Your task to perform on an android device: add a contact Image 0: 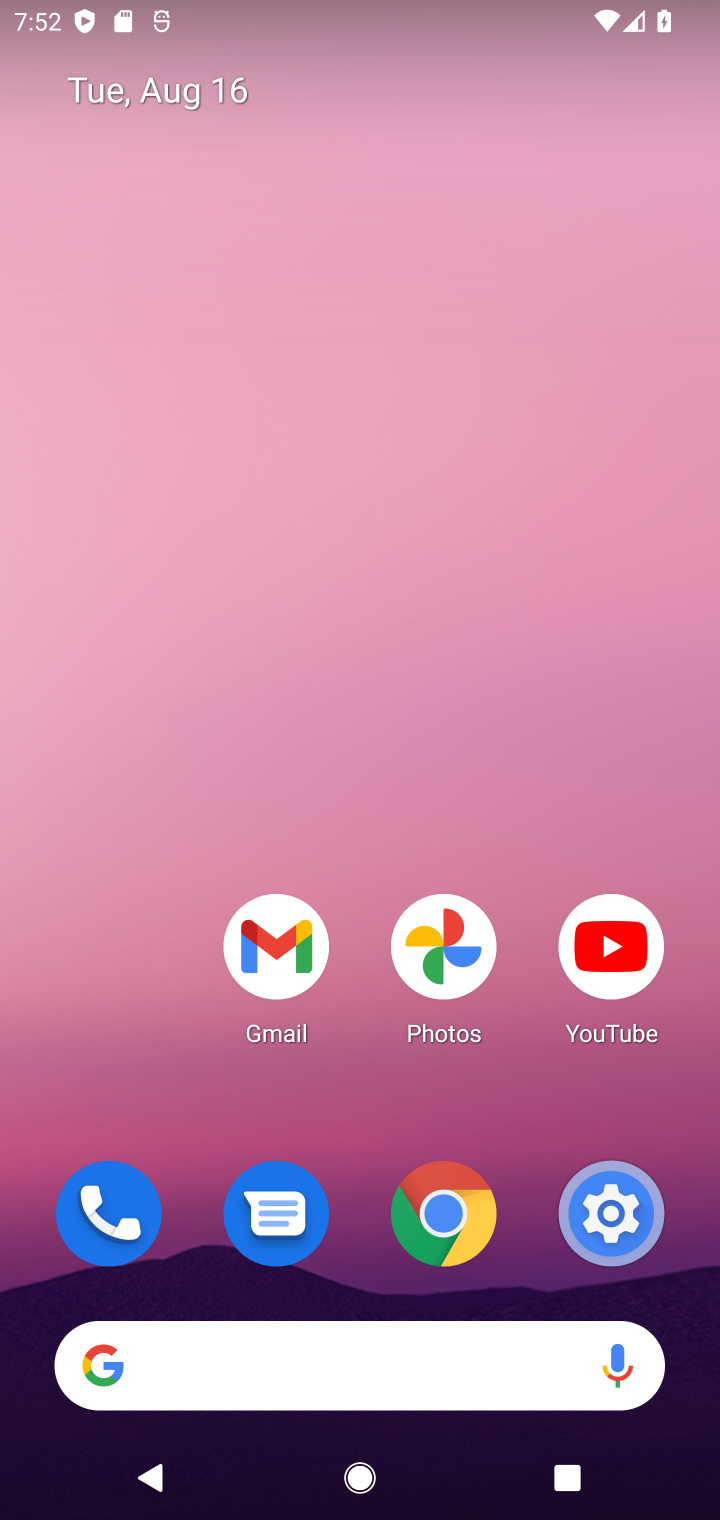
Step 0: drag from (387, 1314) to (375, 137)
Your task to perform on an android device: add a contact Image 1: 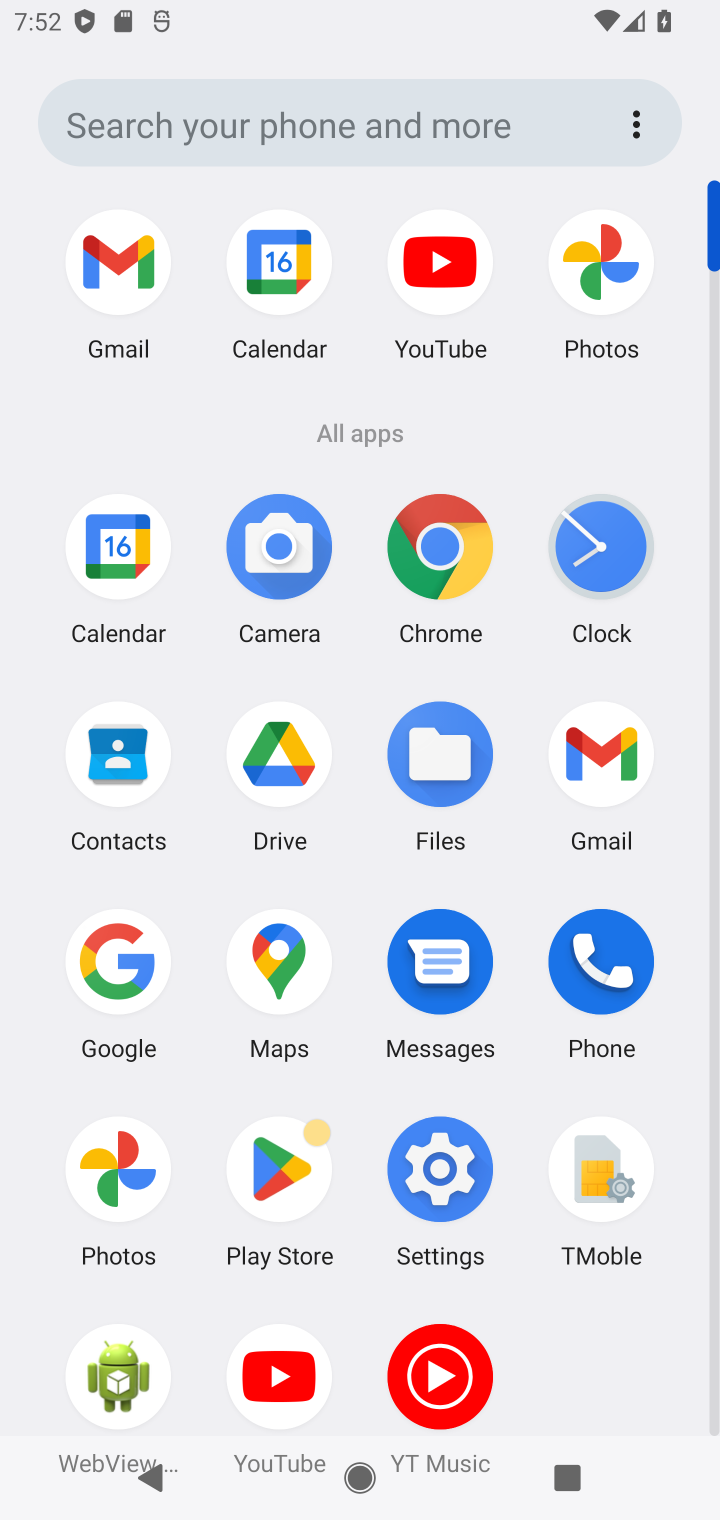
Step 1: click (78, 812)
Your task to perform on an android device: add a contact Image 2: 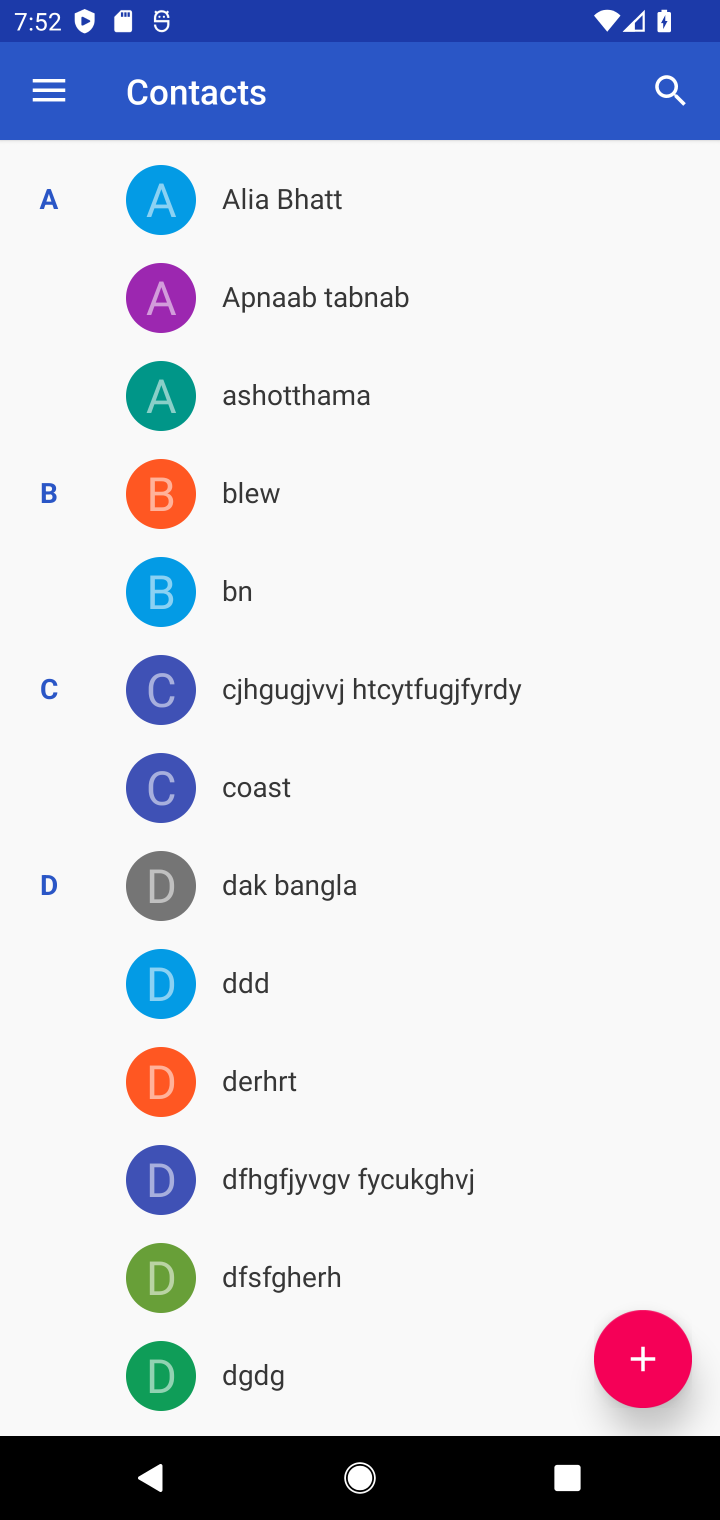
Step 2: click (622, 1375)
Your task to perform on an android device: add a contact Image 3: 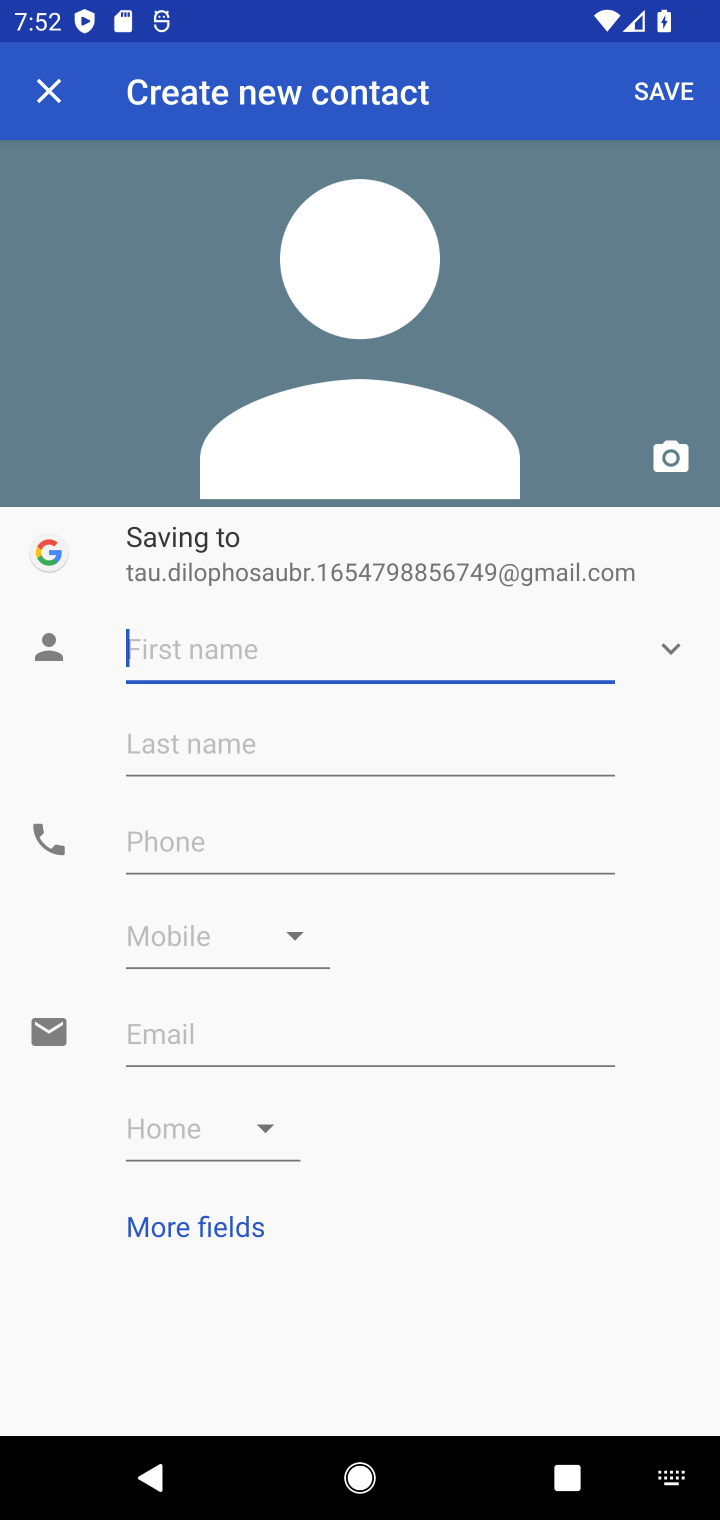
Step 3: type "ojyftdch"
Your task to perform on an android device: add a contact Image 4: 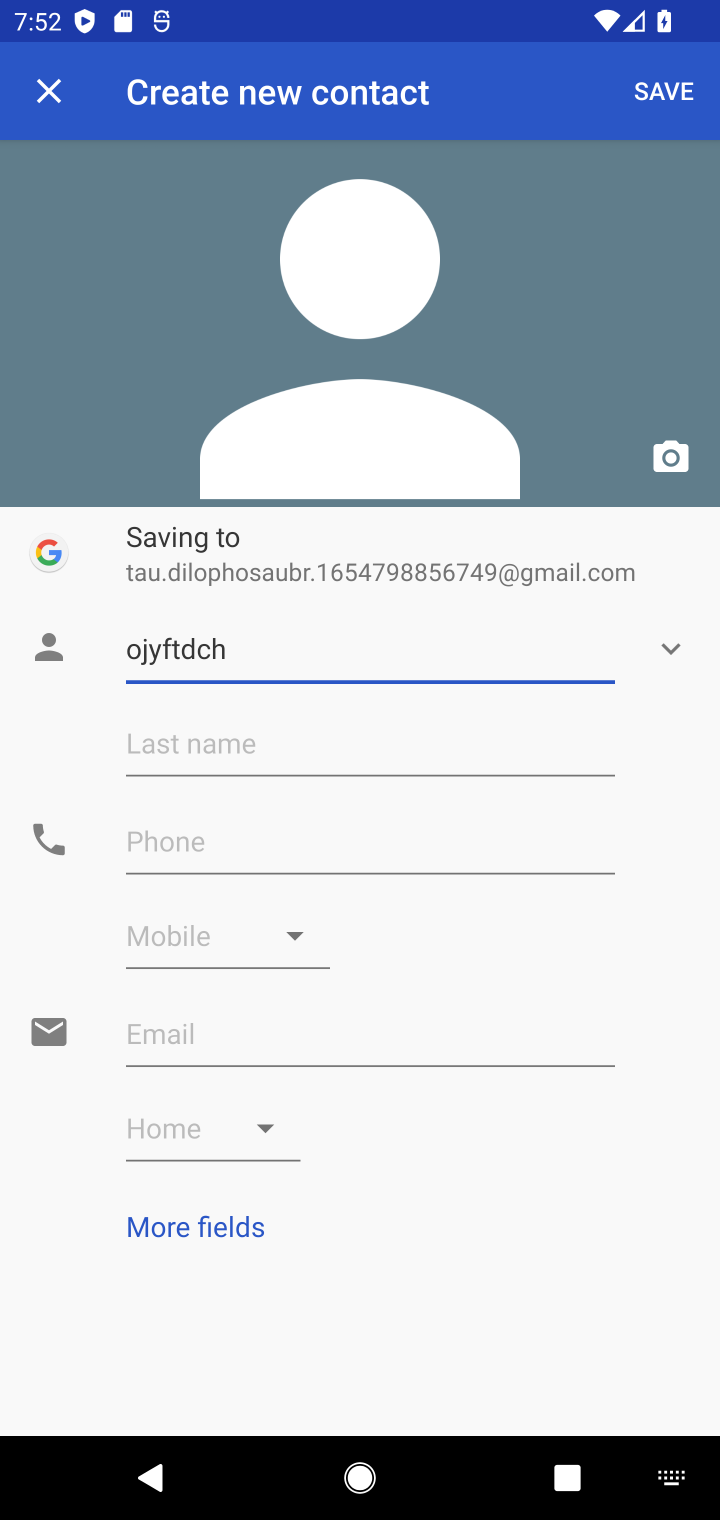
Step 4: click (477, 765)
Your task to perform on an android device: add a contact Image 5: 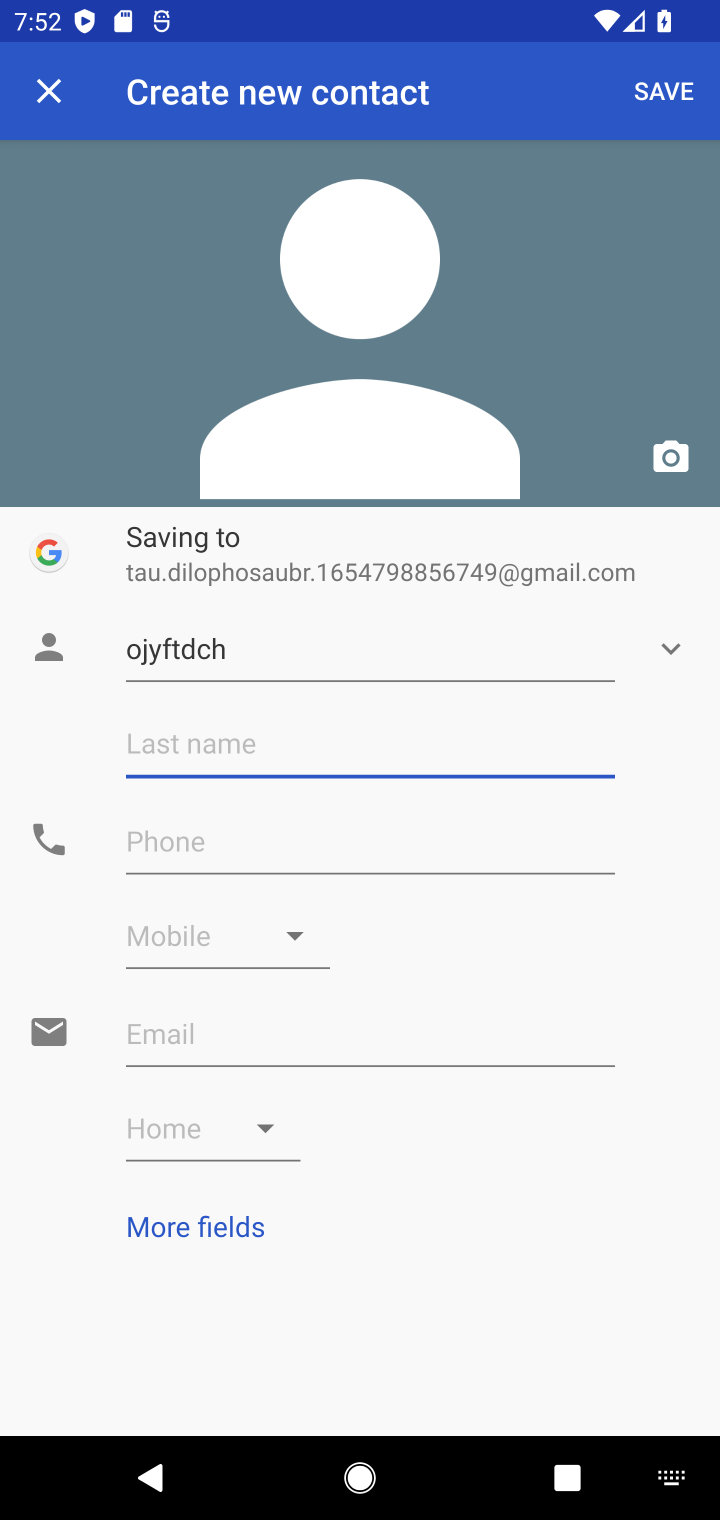
Step 5: type "jkfhdg"
Your task to perform on an android device: add a contact Image 6: 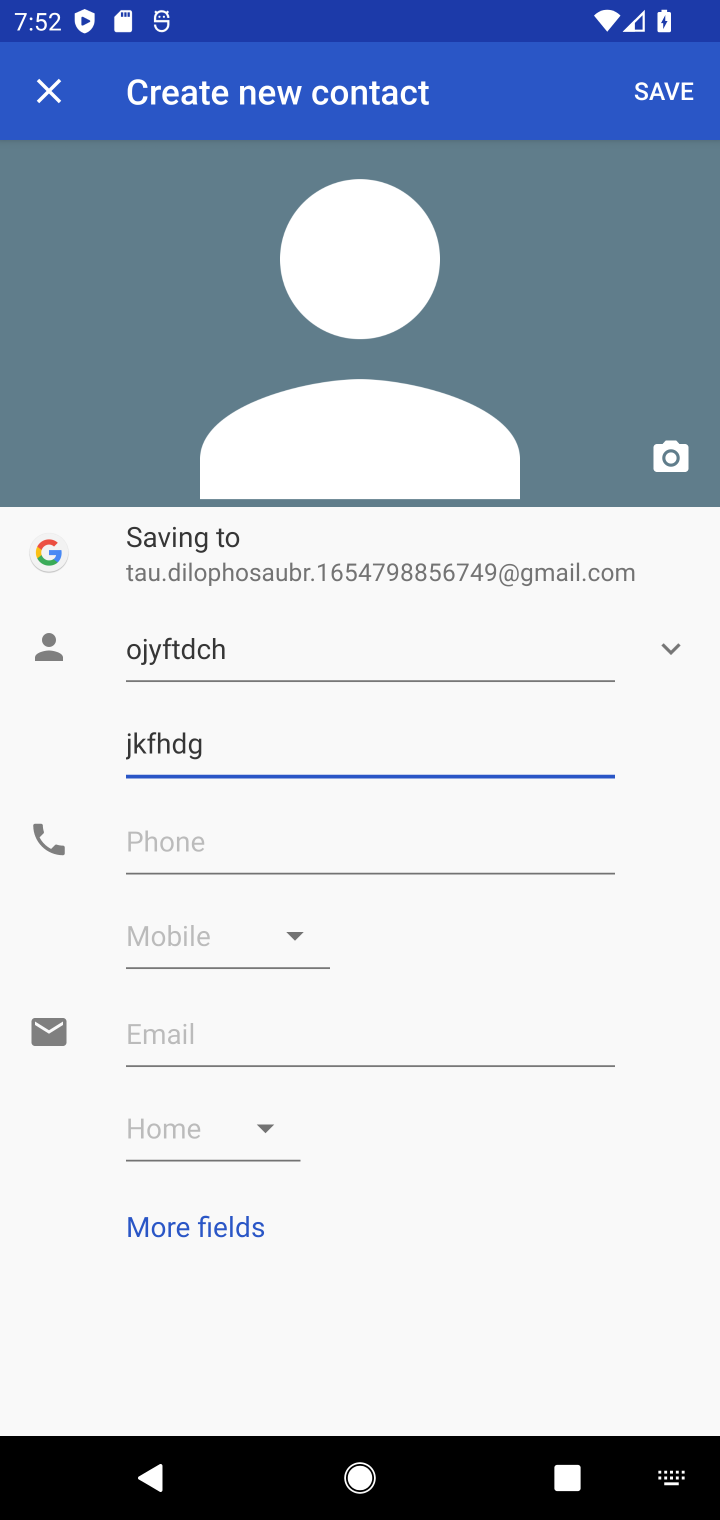
Step 6: click (381, 829)
Your task to perform on an android device: add a contact Image 7: 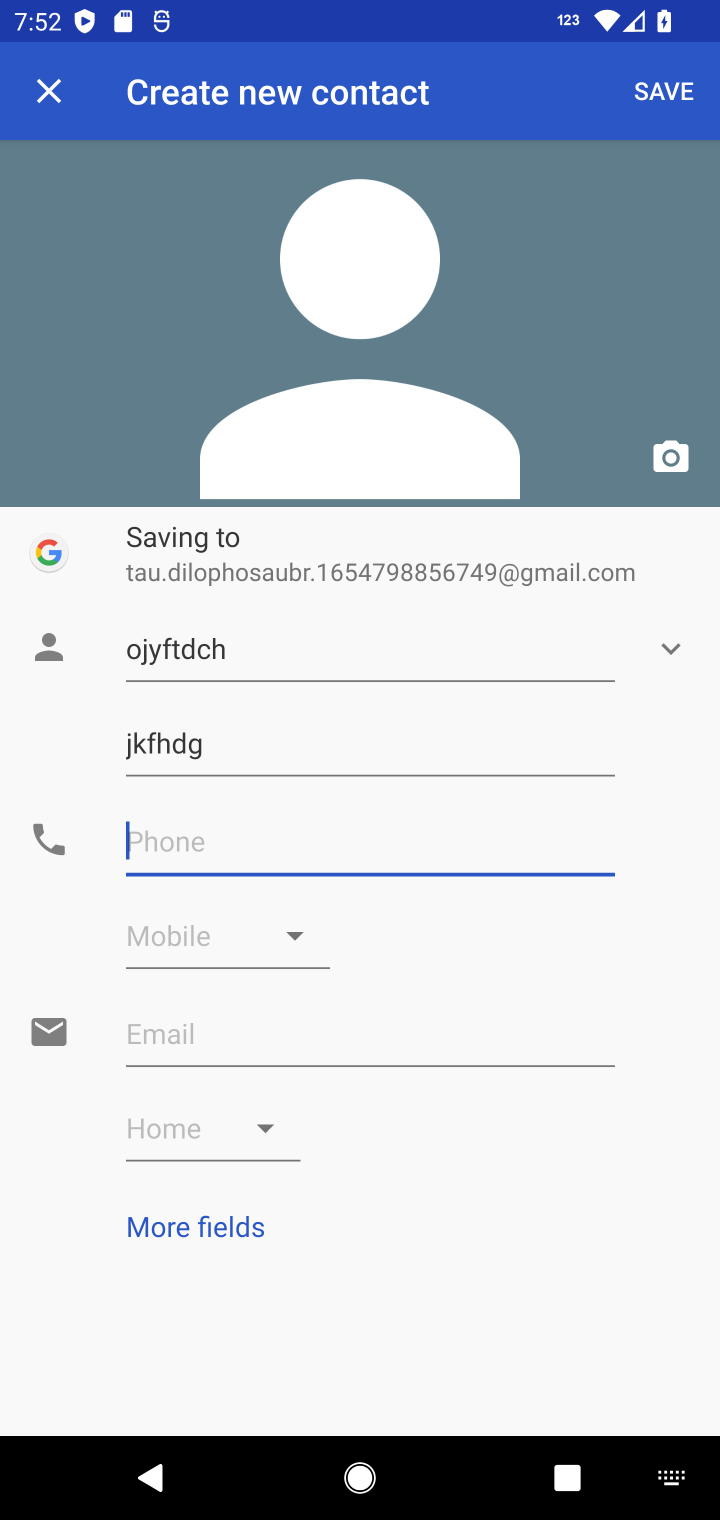
Step 7: type "1234567890987654321"
Your task to perform on an android device: add a contact Image 8: 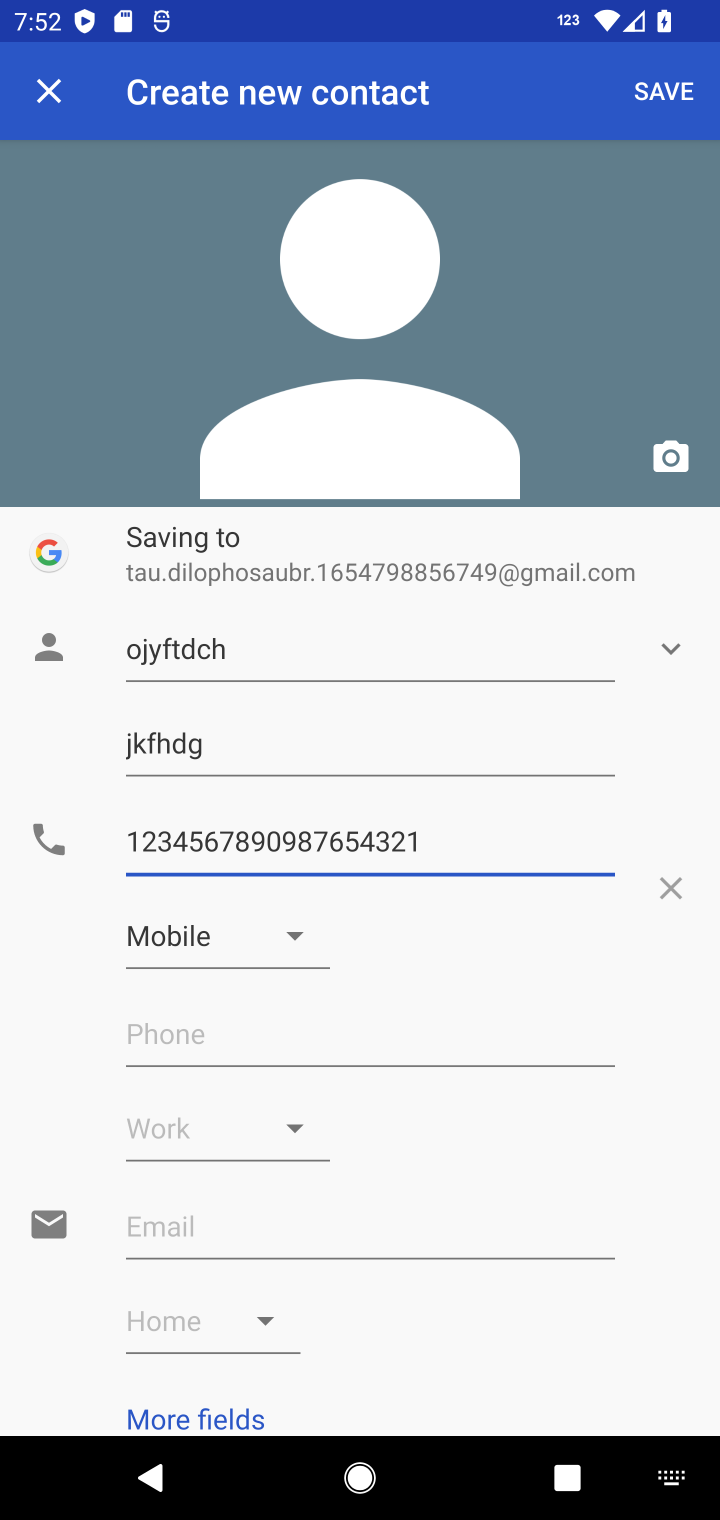
Step 8: click (670, 119)
Your task to perform on an android device: add a contact Image 9: 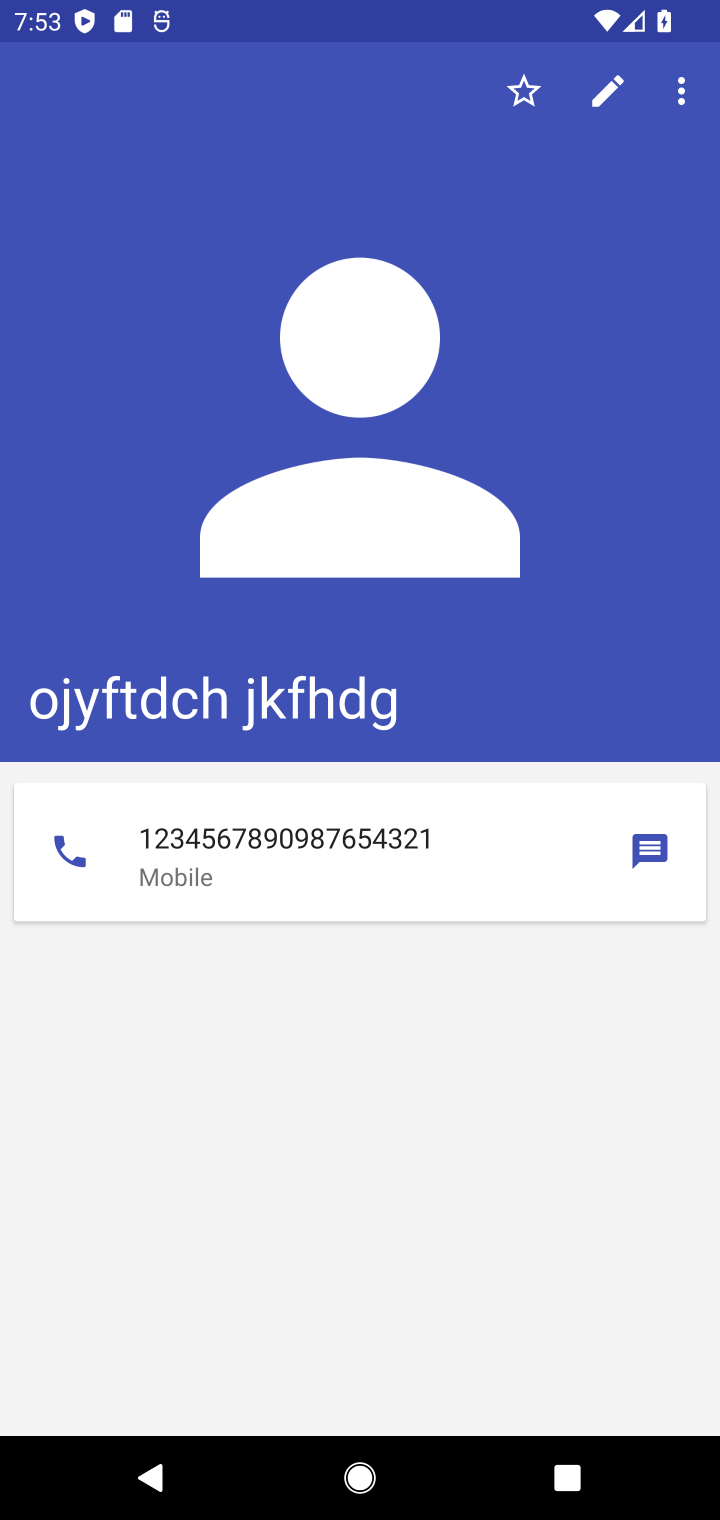
Step 9: task complete